Your task to perform on an android device: Open Google Chrome and click the shortcut for Amazon.com Image 0: 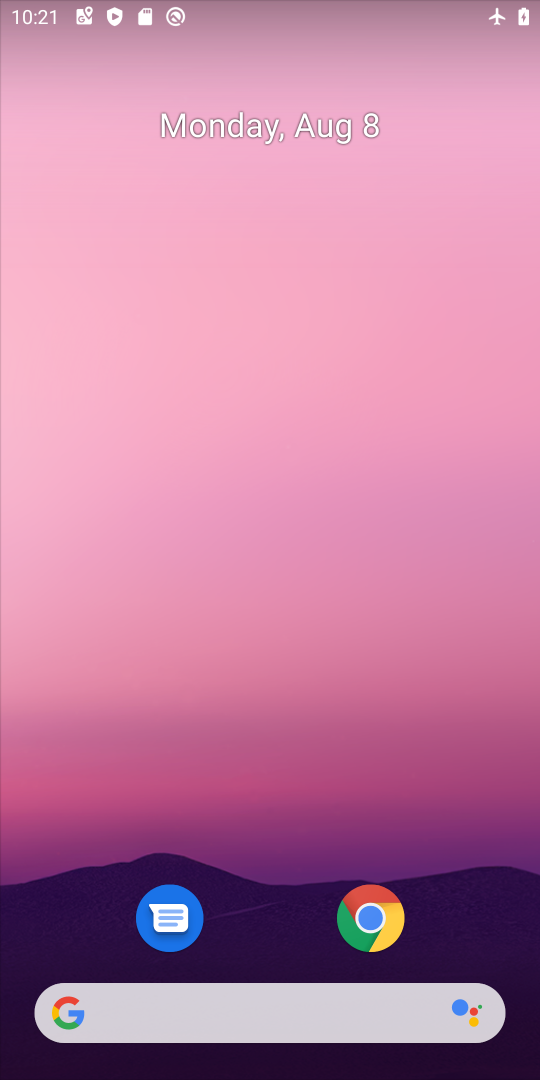
Step 0: drag from (315, 983) to (262, 146)
Your task to perform on an android device: Open Google Chrome and click the shortcut for Amazon.com Image 1: 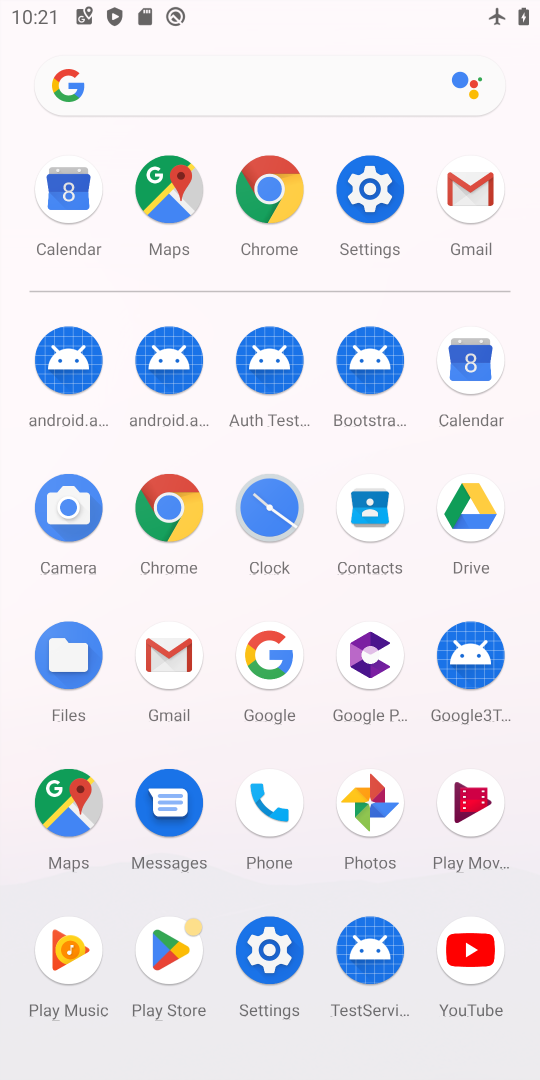
Step 1: click (174, 490)
Your task to perform on an android device: Open Google Chrome and click the shortcut for Amazon.com Image 2: 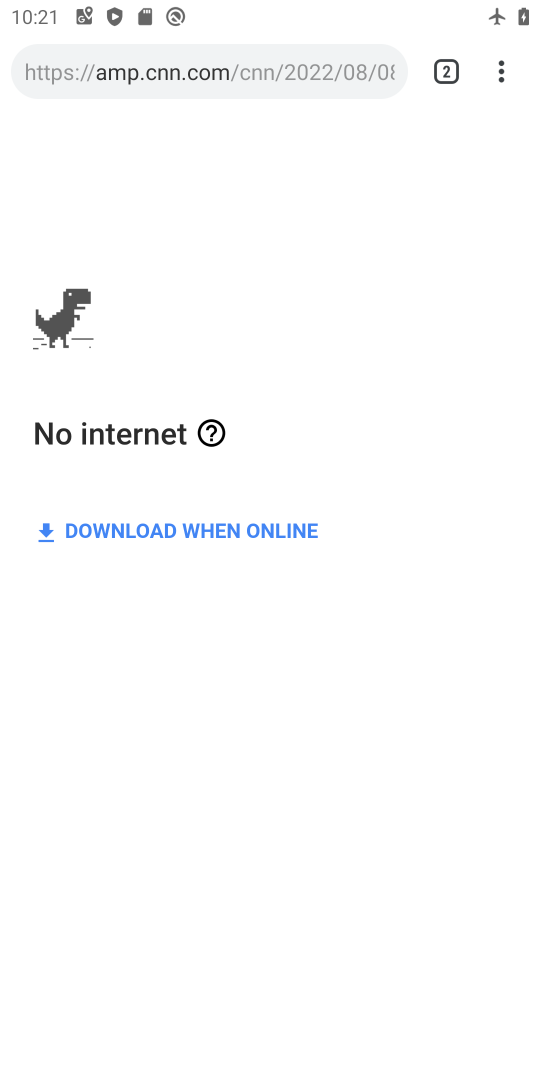
Step 2: click (453, 69)
Your task to perform on an android device: Open Google Chrome and click the shortcut for Amazon.com Image 3: 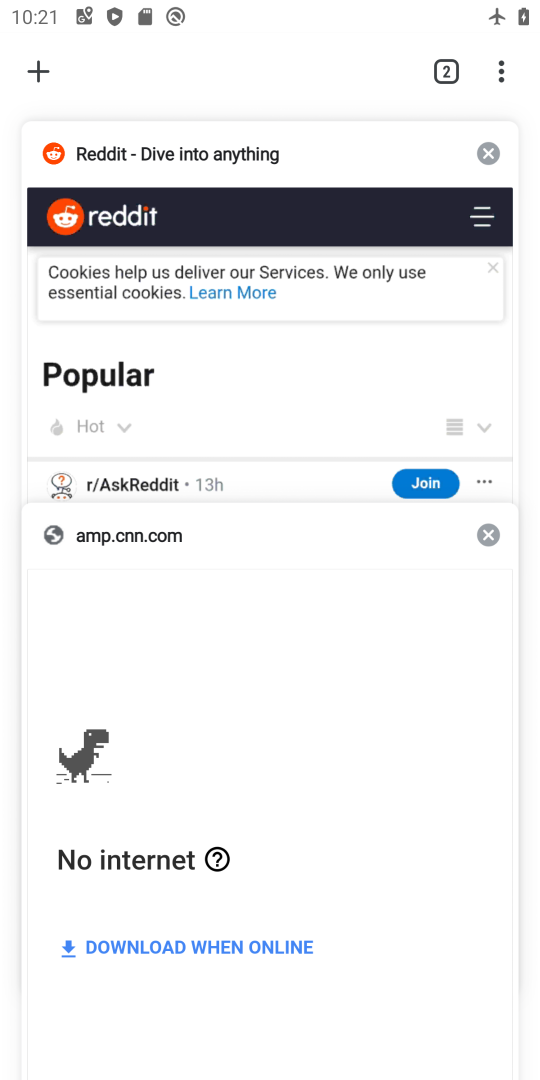
Step 3: click (42, 63)
Your task to perform on an android device: Open Google Chrome and click the shortcut for Amazon.com Image 4: 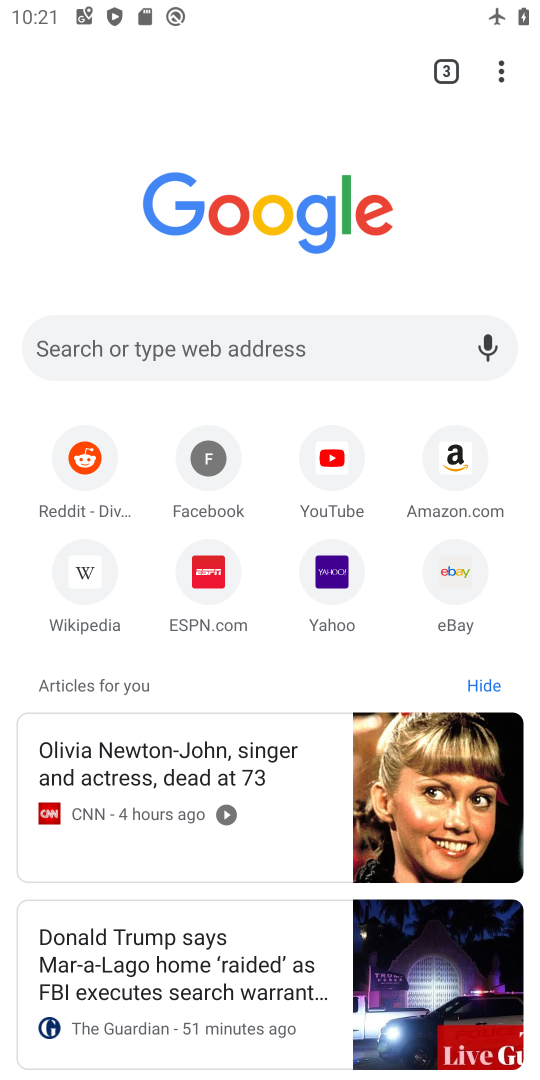
Step 4: click (449, 491)
Your task to perform on an android device: Open Google Chrome and click the shortcut for Amazon.com Image 5: 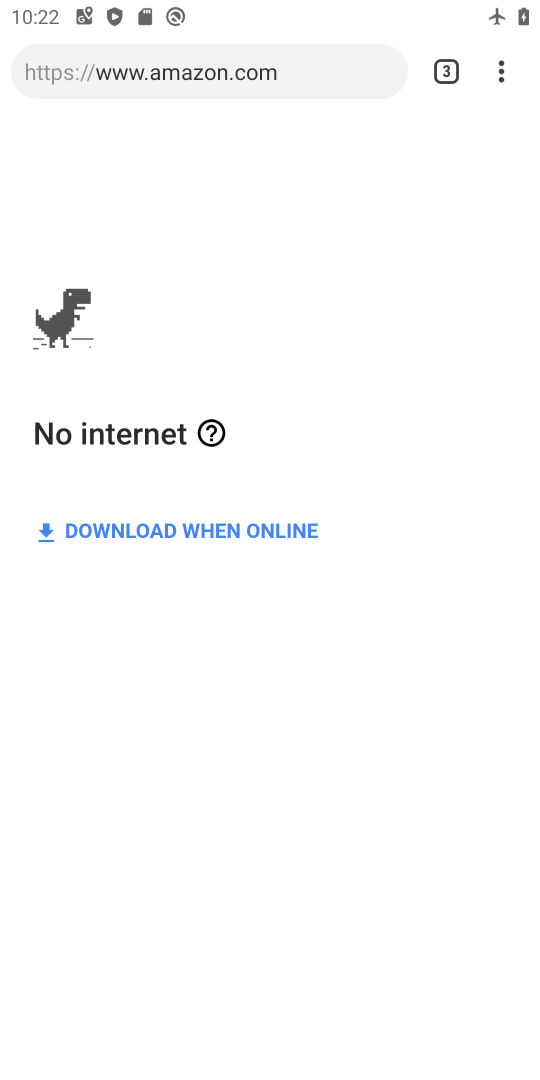
Step 5: task complete